Your task to perform on an android device: Show me recent news Image 0: 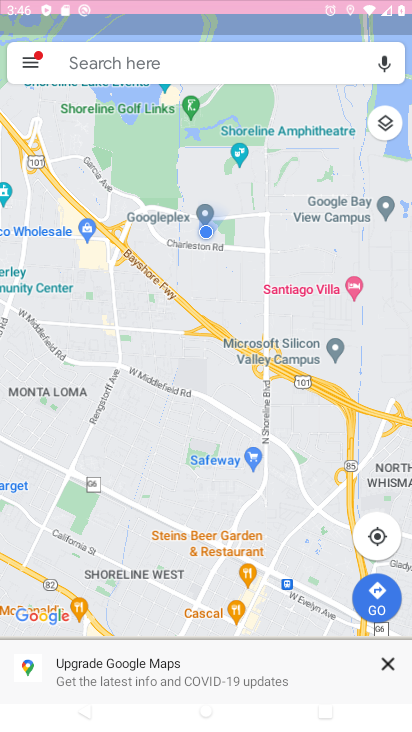
Step 0: click (211, 103)
Your task to perform on an android device: Show me recent news Image 1: 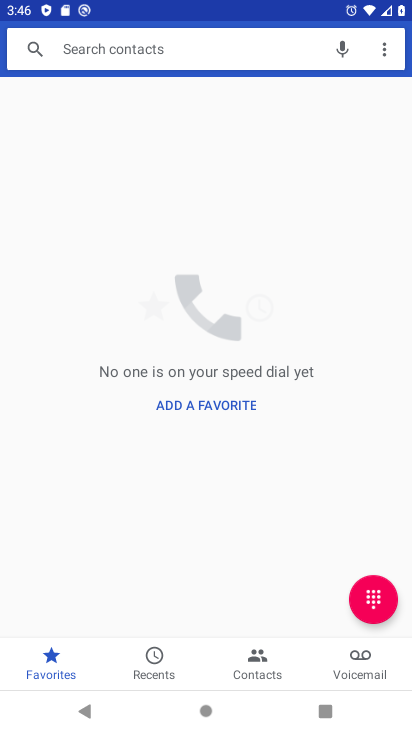
Step 1: press home button
Your task to perform on an android device: Show me recent news Image 2: 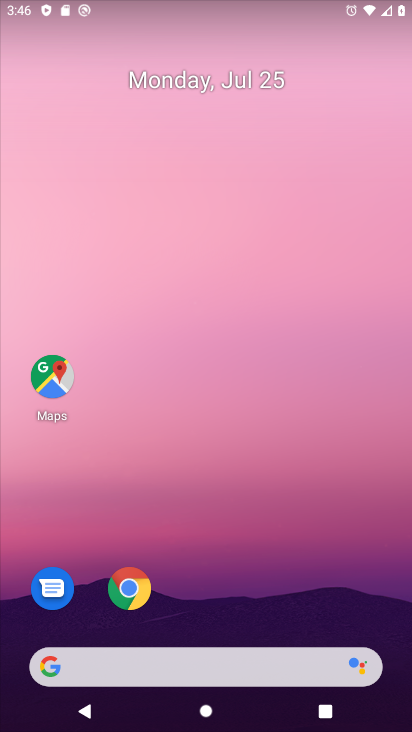
Step 2: drag from (2, 266) to (376, 138)
Your task to perform on an android device: Show me recent news Image 3: 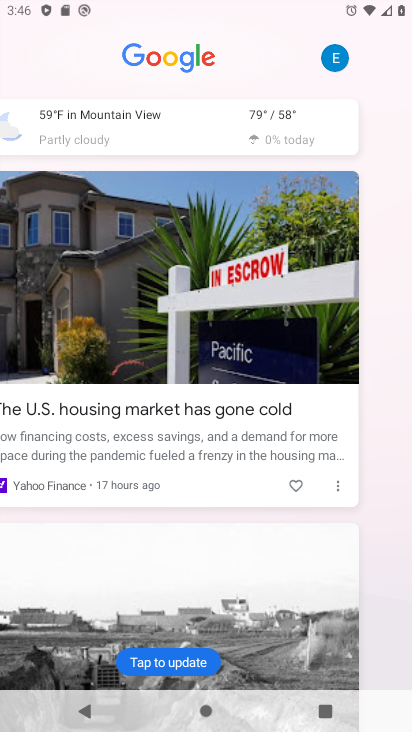
Step 3: click (187, 52)
Your task to perform on an android device: Show me recent news Image 4: 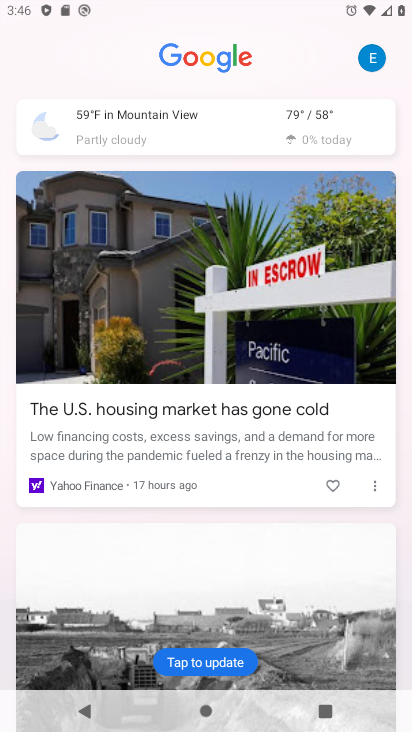
Step 4: task complete